Your task to perform on an android device: Open sound settings Image 0: 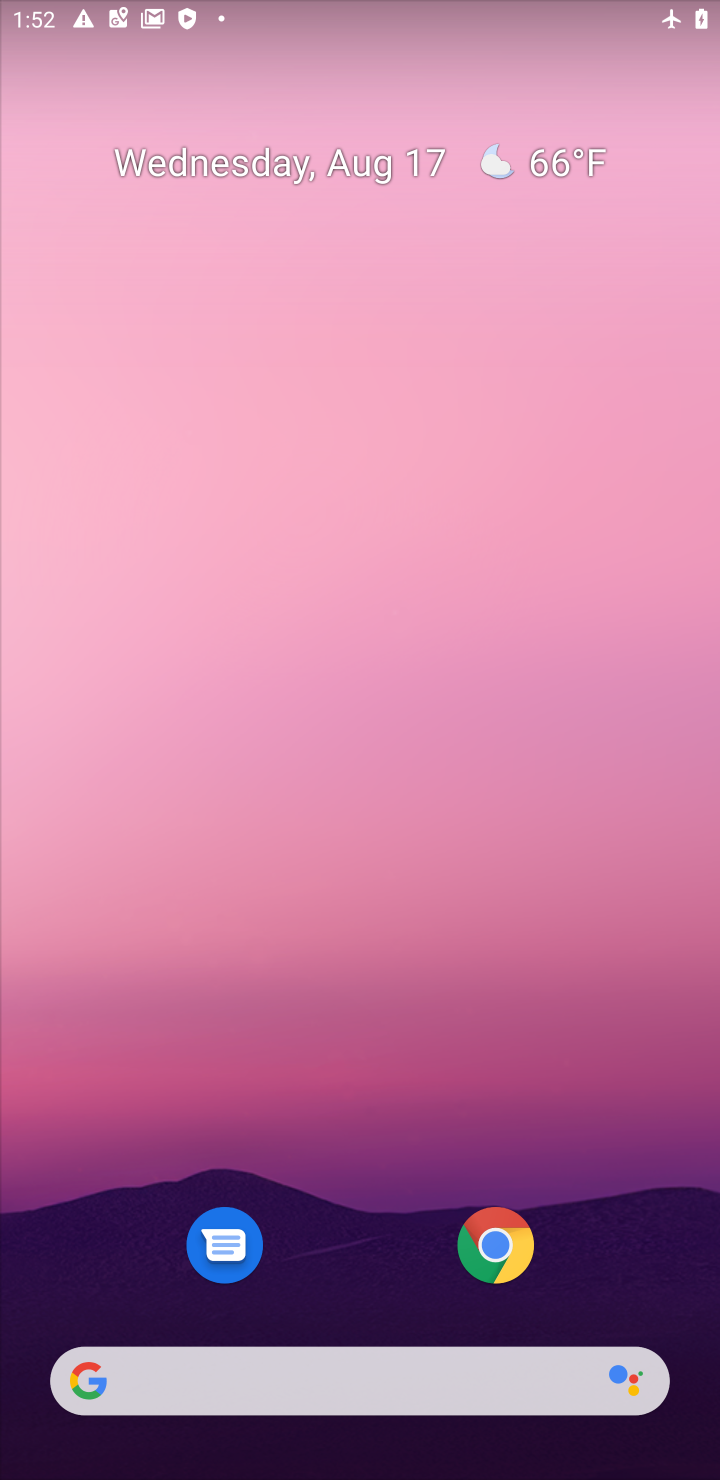
Step 0: drag from (366, 1232) to (378, 124)
Your task to perform on an android device: Open sound settings Image 1: 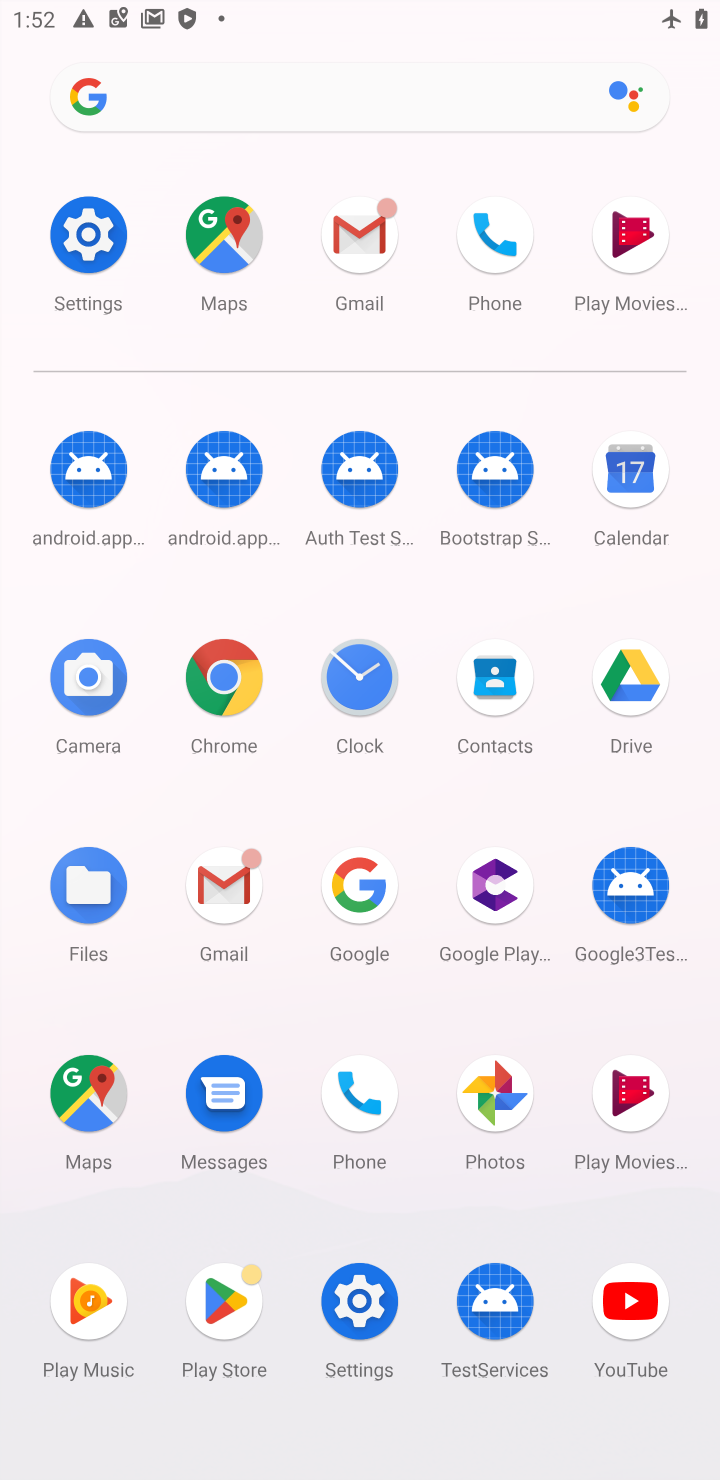
Step 1: click (76, 236)
Your task to perform on an android device: Open sound settings Image 2: 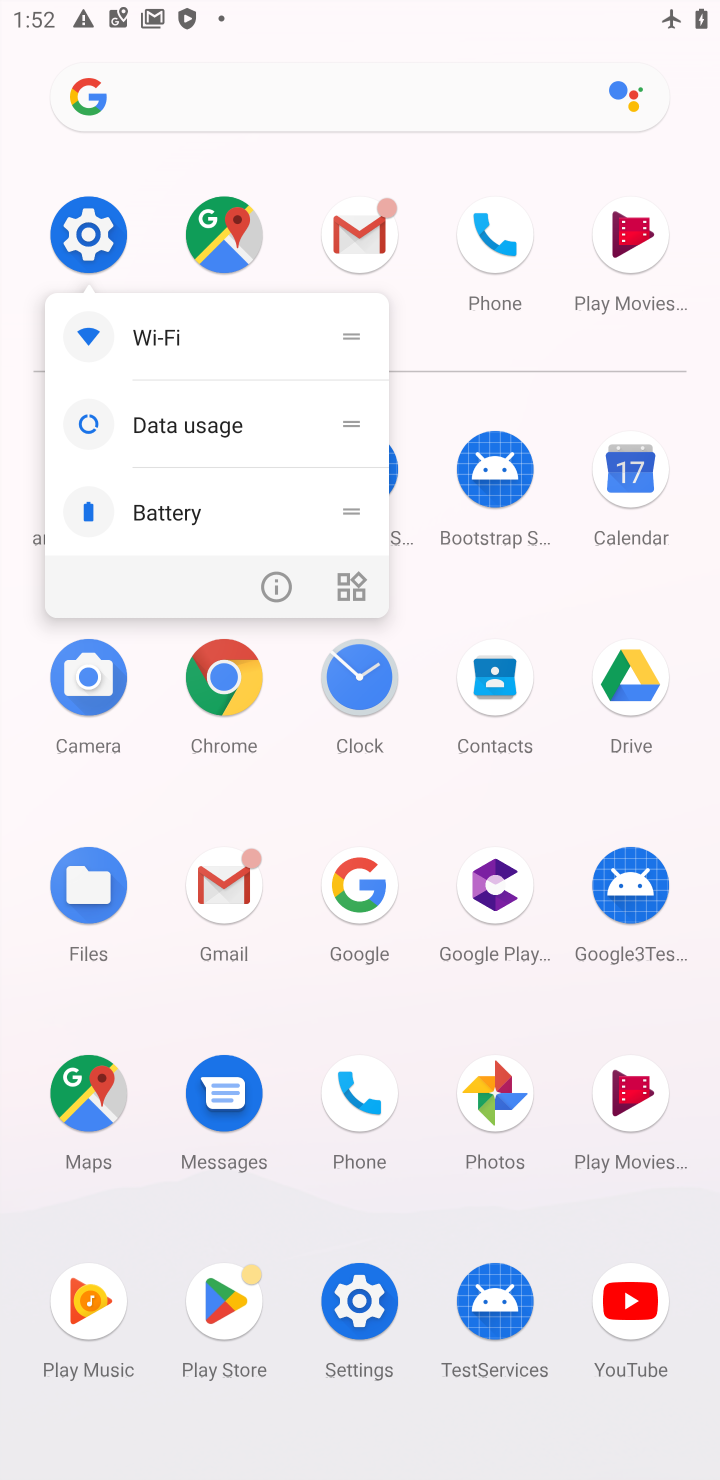
Step 2: click (65, 242)
Your task to perform on an android device: Open sound settings Image 3: 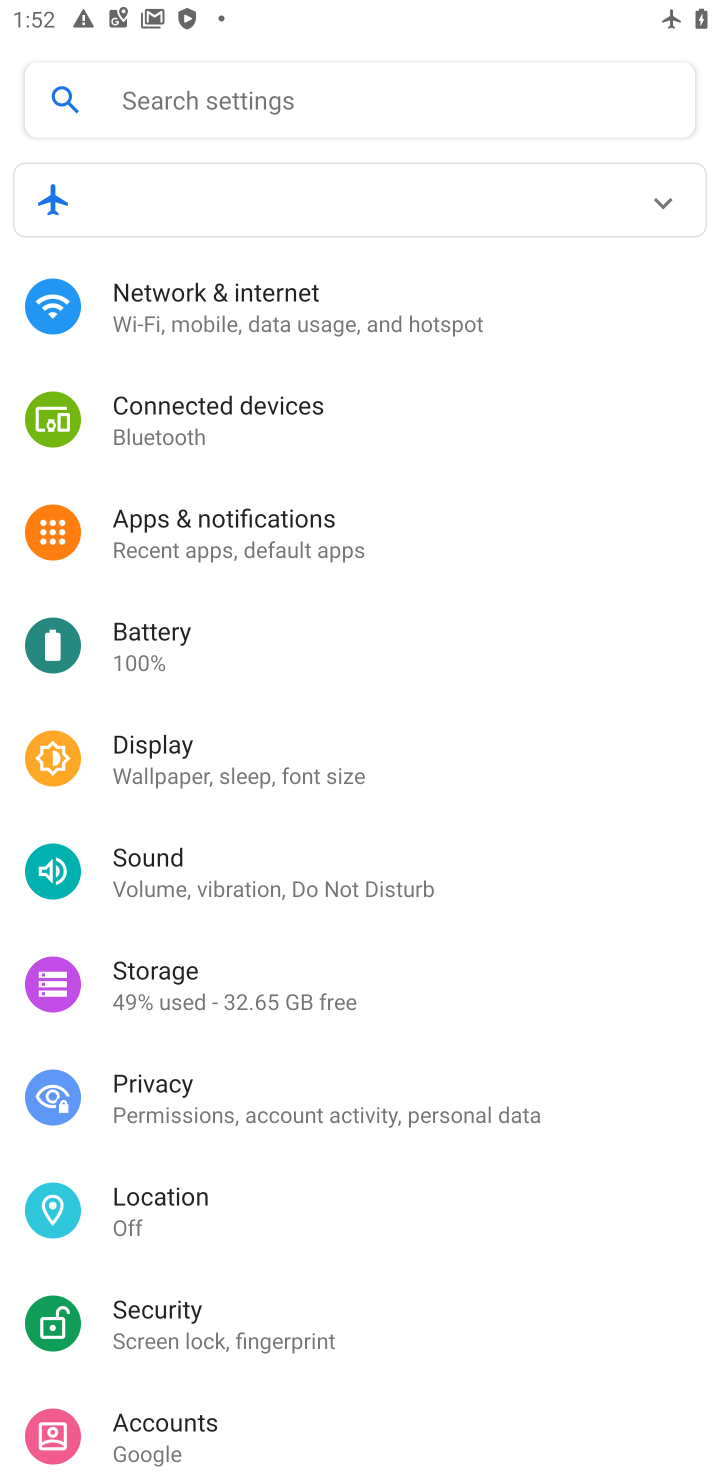
Step 3: click (180, 873)
Your task to perform on an android device: Open sound settings Image 4: 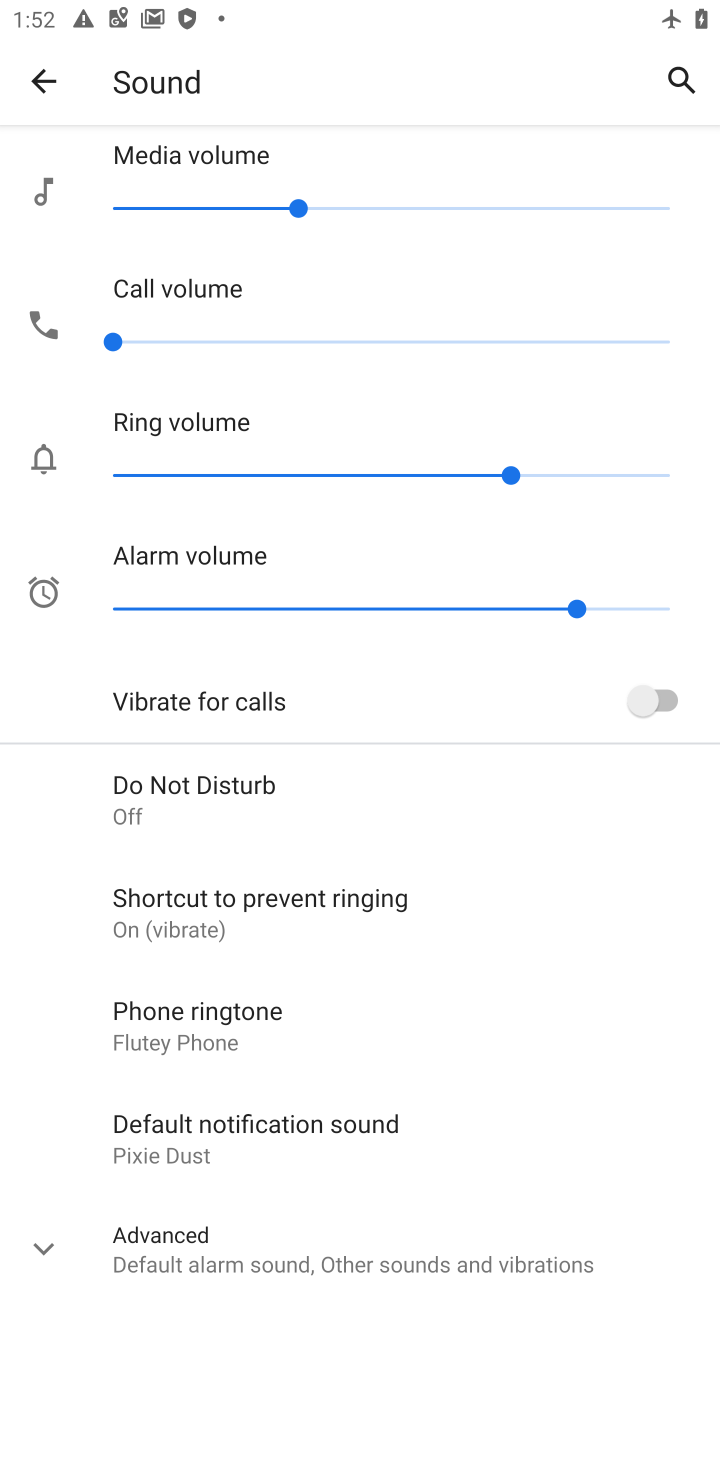
Step 4: task complete